Your task to perform on an android device: open chrome privacy settings Image 0: 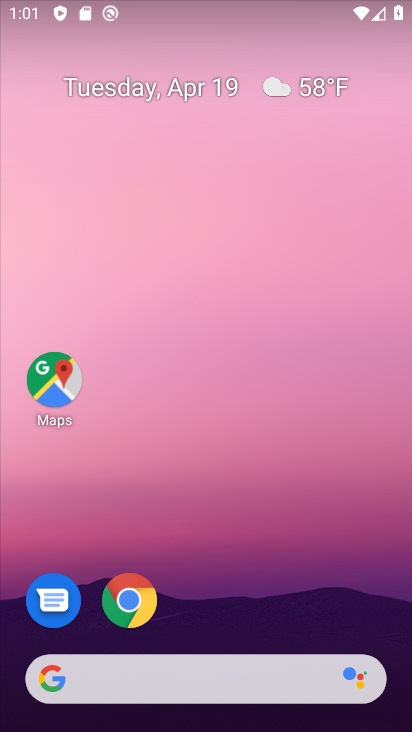
Step 0: click (136, 600)
Your task to perform on an android device: open chrome privacy settings Image 1: 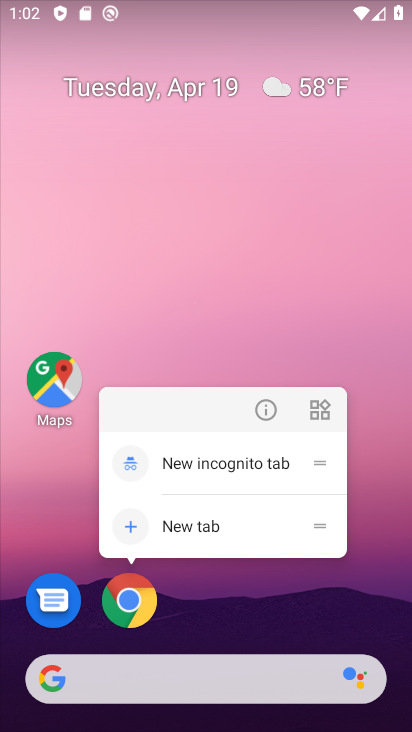
Step 1: click (131, 605)
Your task to perform on an android device: open chrome privacy settings Image 2: 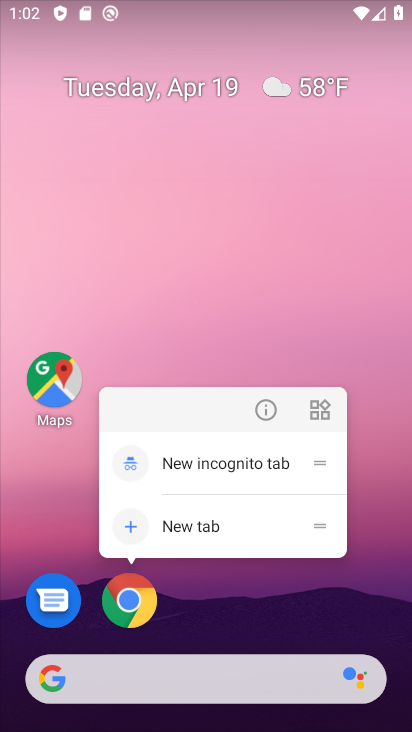
Step 2: click (127, 620)
Your task to perform on an android device: open chrome privacy settings Image 3: 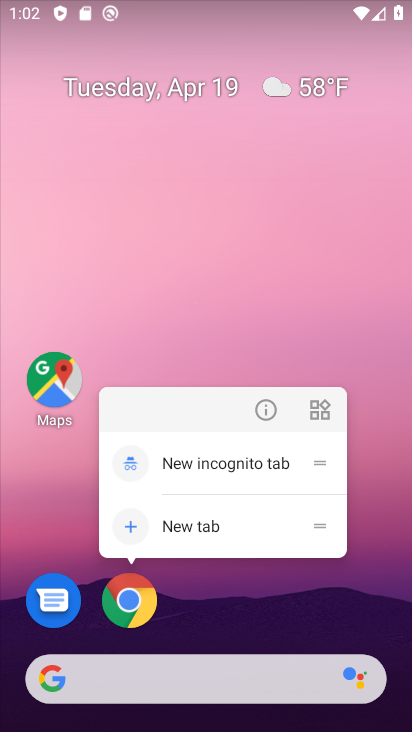
Step 3: click (123, 604)
Your task to perform on an android device: open chrome privacy settings Image 4: 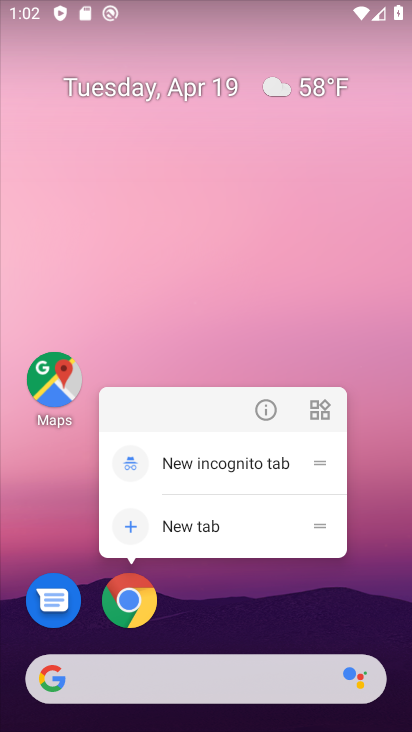
Step 4: click (137, 602)
Your task to perform on an android device: open chrome privacy settings Image 5: 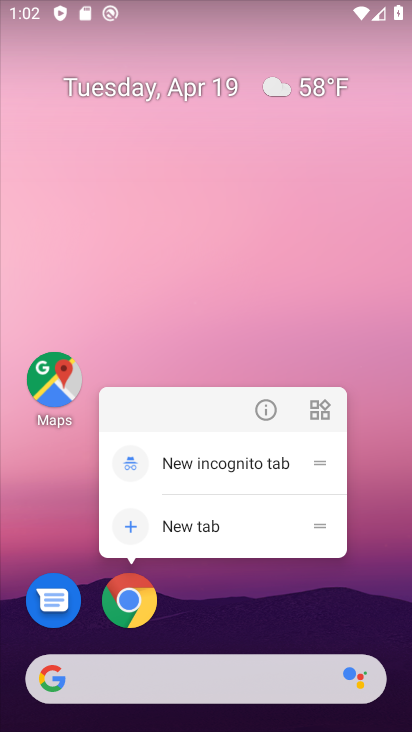
Step 5: click (126, 612)
Your task to perform on an android device: open chrome privacy settings Image 6: 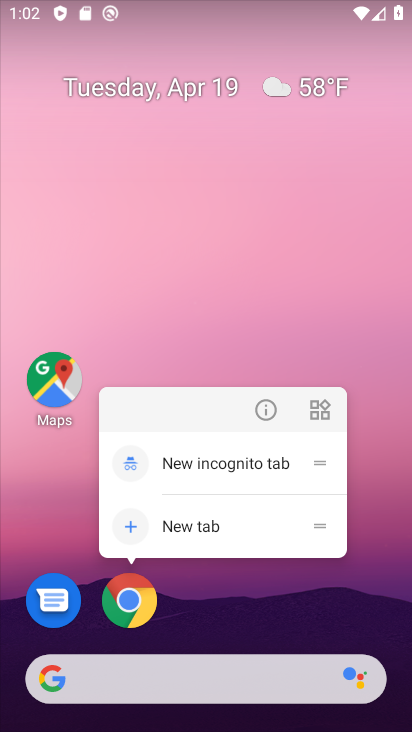
Step 6: click (130, 600)
Your task to perform on an android device: open chrome privacy settings Image 7: 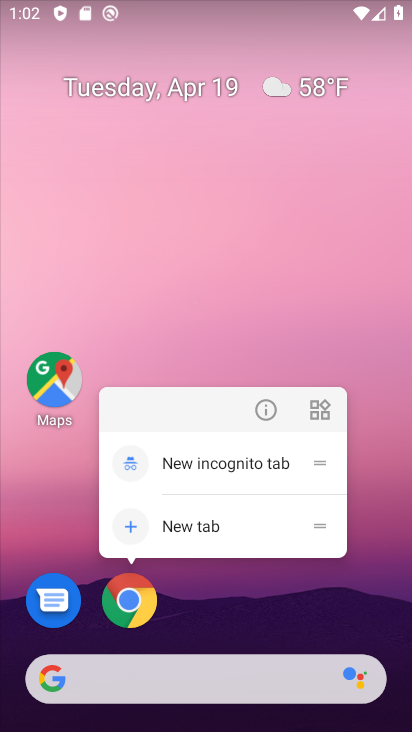
Step 7: click (124, 607)
Your task to perform on an android device: open chrome privacy settings Image 8: 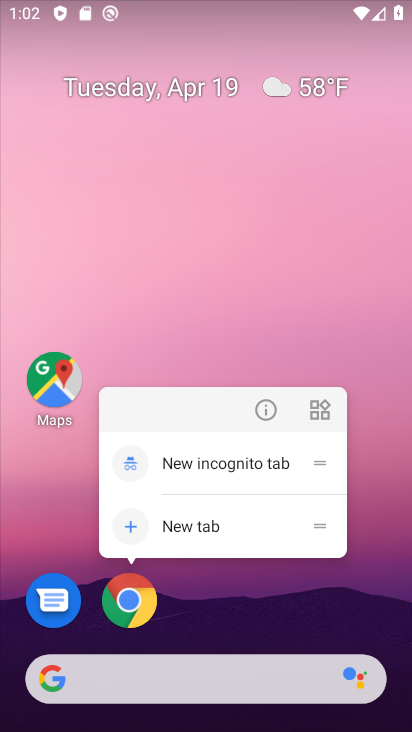
Step 8: click (141, 602)
Your task to perform on an android device: open chrome privacy settings Image 9: 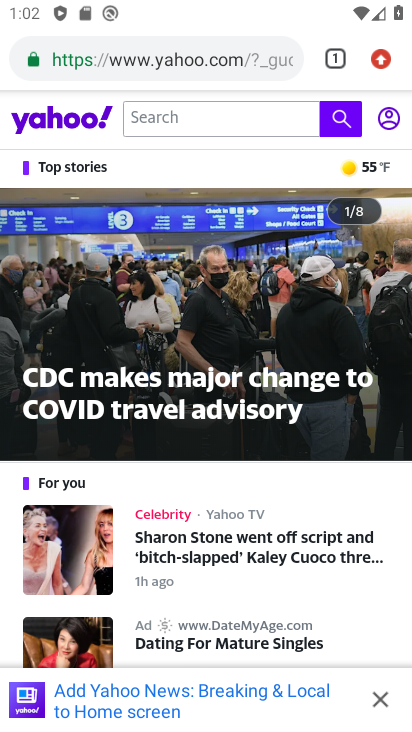
Step 9: click (379, 61)
Your task to perform on an android device: open chrome privacy settings Image 10: 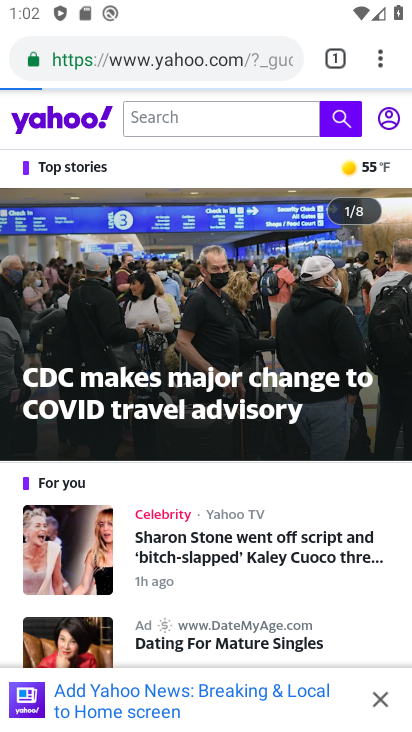
Step 10: drag from (388, 61) to (252, 631)
Your task to perform on an android device: open chrome privacy settings Image 11: 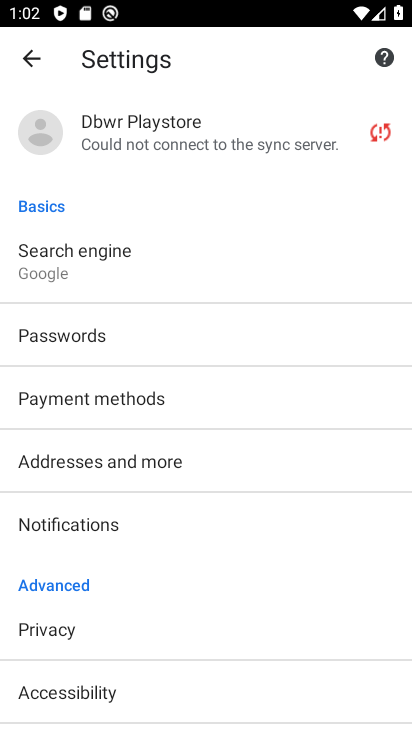
Step 11: click (81, 634)
Your task to perform on an android device: open chrome privacy settings Image 12: 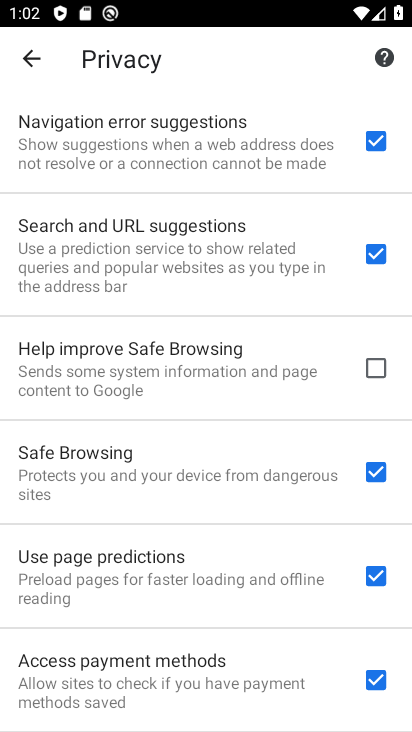
Step 12: task complete